Your task to perform on an android device: turn off airplane mode Image 0: 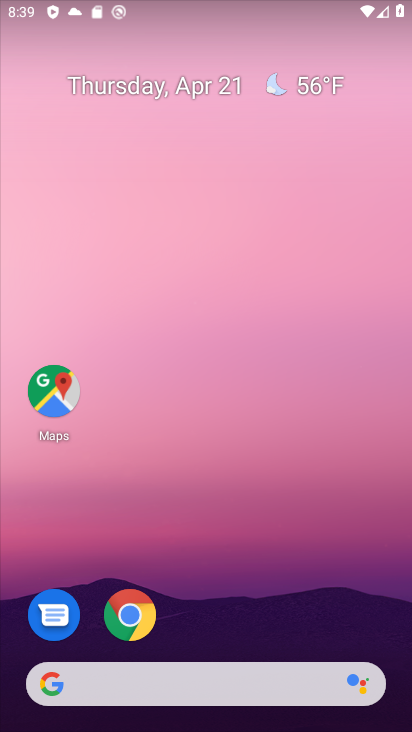
Step 0: drag from (251, 517) to (196, 266)
Your task to perform on an android device: turn off airplane mode Image 1: 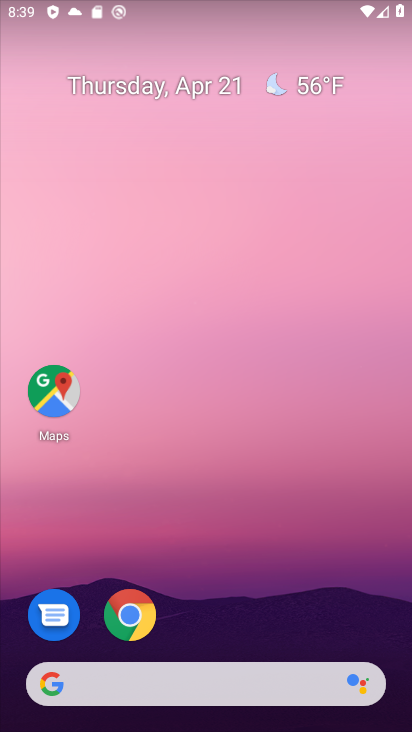
Step 1: drag from (235, 587) to (245, 100)
Your task to perform on an android device: turn off airplane mode Image 2: 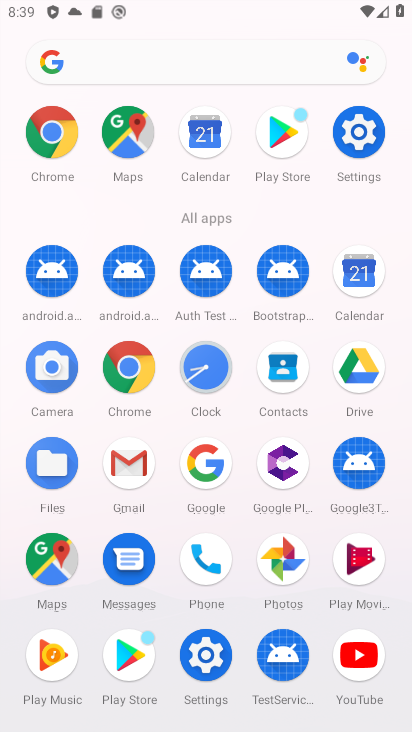
Step 2: click (372, 146)
Your task to perform on an android device: turn off airplane mode Image 3: 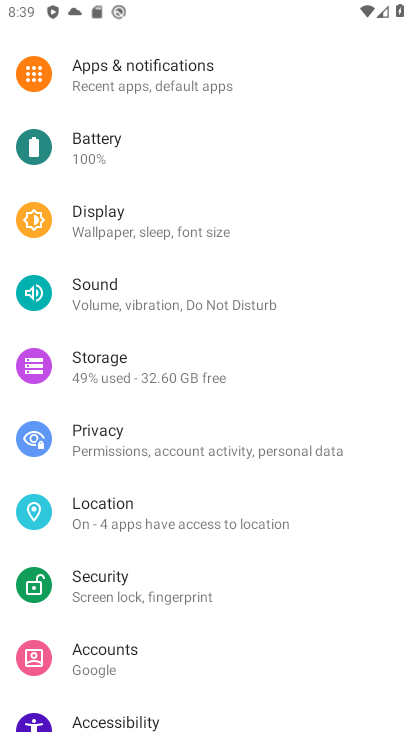
Step 3: drag from (148, 239) to (147, 557)
Your task to perform on an android device: turn off airplane mode Image 4: 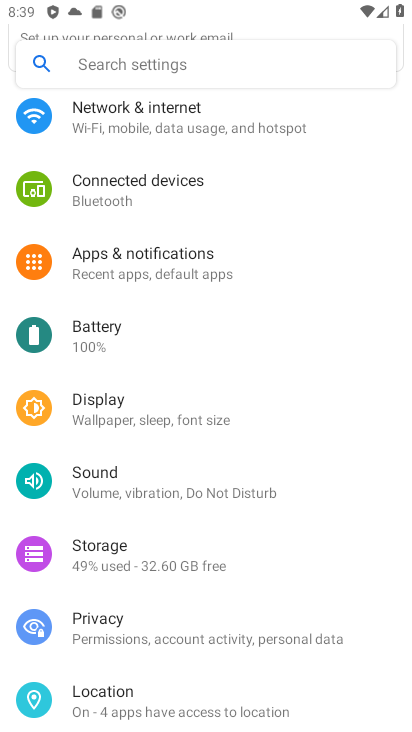
Step 4: drag from (230, 325) to (201, 579)
Your task to perform on an android device: turn off airplane mode Image 5: 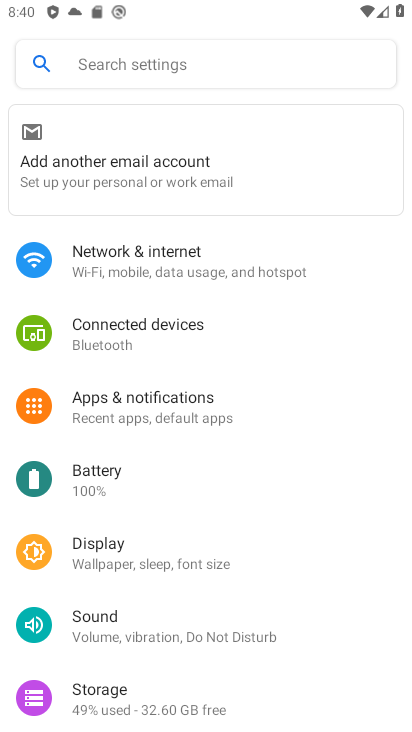
Step 5: click (221, 263)
Your task to perform on an android device: turn off airplane mode Image 6: 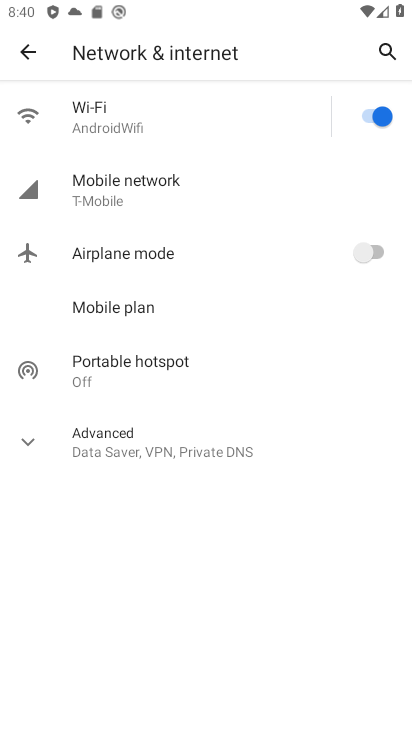
Step 6: task complete